Your task to perform on an android device: turn off translation in the chrome app Image 0: 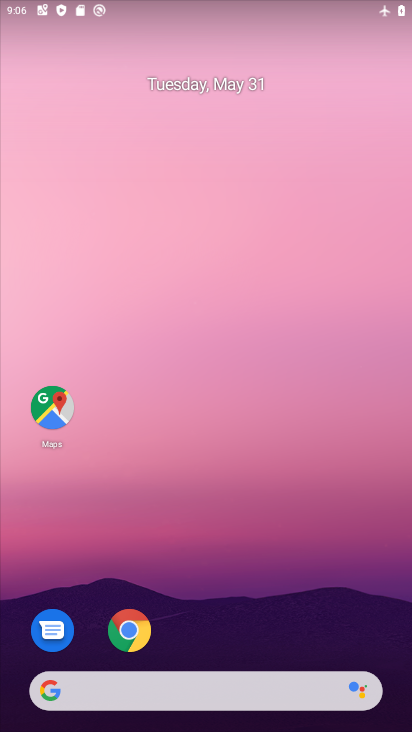
Step 0: drag from (253, 559) to (266, 254)
Your task to perform on an android device: turn off translation in the chrome app Image 1: 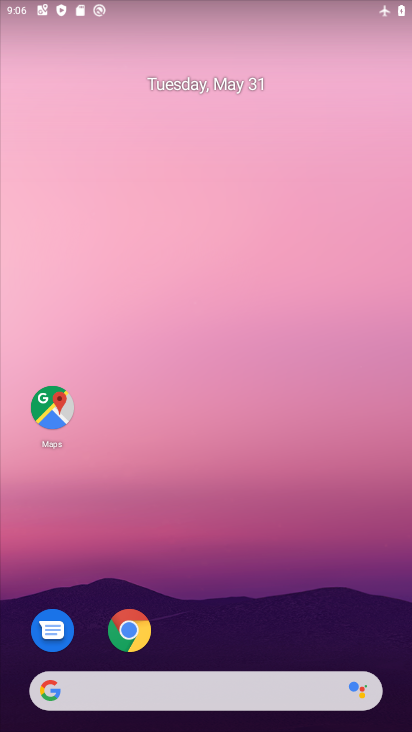
Step 1: drag from (184, 645) to (219, 148)
Your task to perform on an android device: turn off translation in the chrome app Image 2: 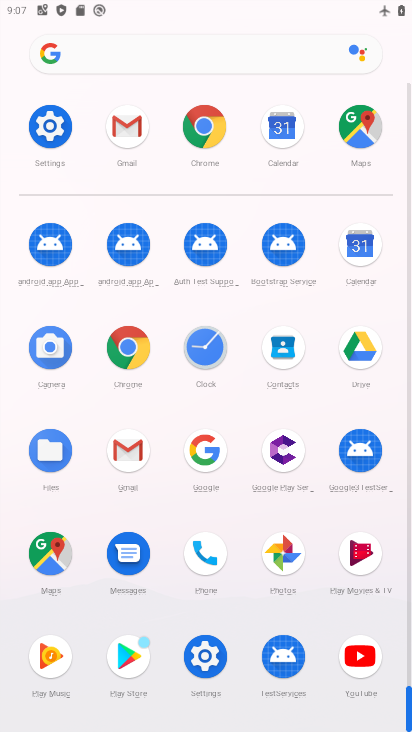
Step 2: click (121, 342)
Your task to perform on an android device: turn off translation in the chrome app Image 3: 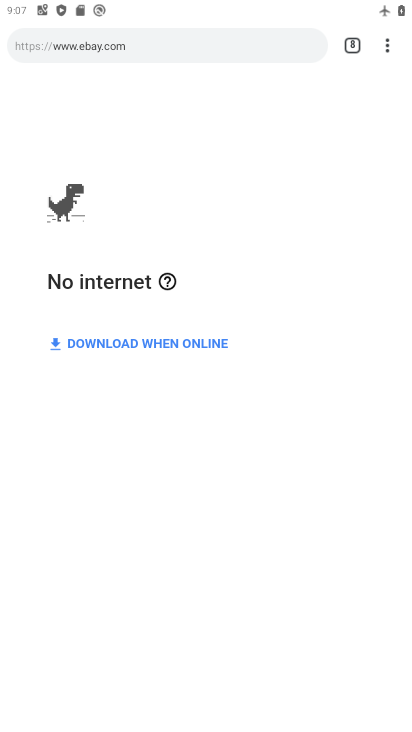
Step 3: click (382, 48)
Your task to perform on an android device: turn off translation in the chrome app Image 4: 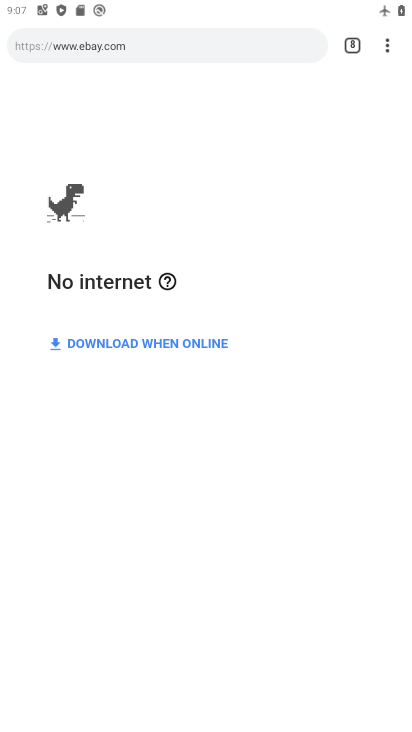
Step 4: click (383, 54)
Your task to perform on an android device: turn off translation in the chrome app Image 5: 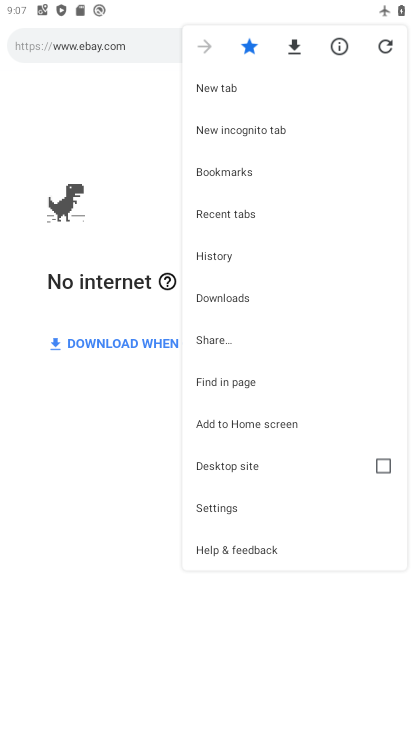
Step 5: click (249, 504)
Your task to perform on an android device: turn off translation in the chrome app Image 6: 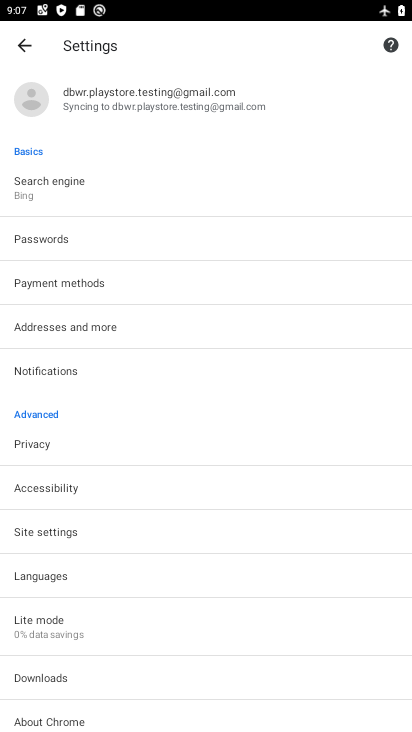
Step 6: drag from (130, 604) to (129, 382)
Your task to perform on an android device: turn off translation in the chrome app Image 7: 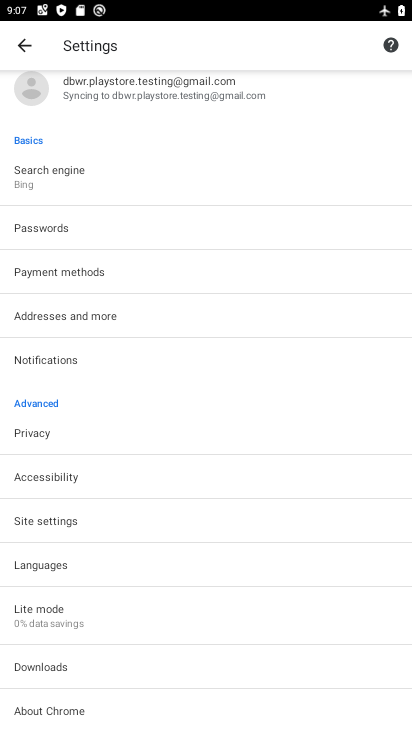
Step 7: click (75, 559)
Your task to perform on an android device: turn off translation in the chrome app Image 8: 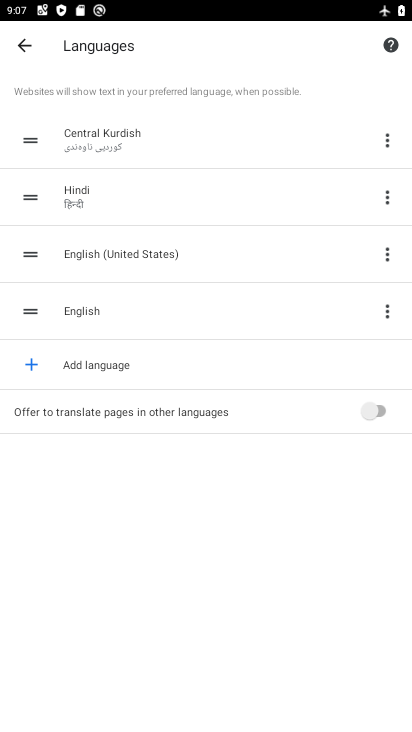
Step 8: task complete